Your task to perform on an android device: turn off data saver in the chrome app Image 0: 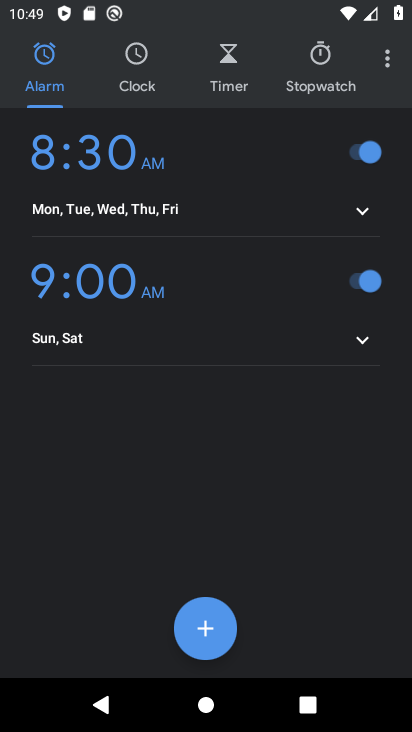
Step 0: press home button
Your task to perform on an android device: turn off data saver in the chrome app Image 1: 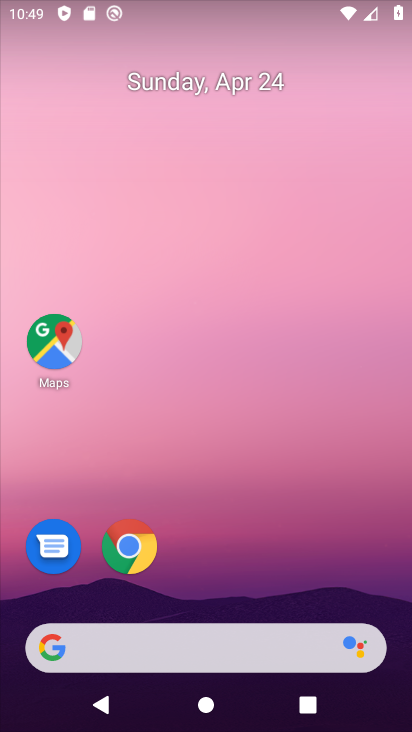
Step 1: click (116, 540)
Your task to perform on an android device: turn off data saver in the chrome app Image 2: 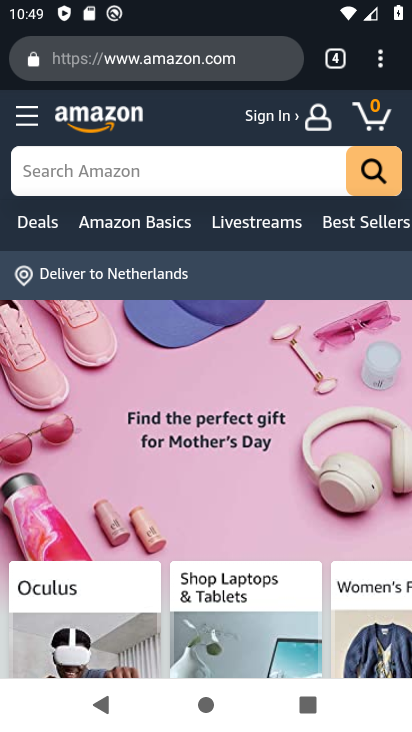
Step 2: click (384, 55)
Your task to perform on an android device: turn off data saver in the chrome app Image 3: 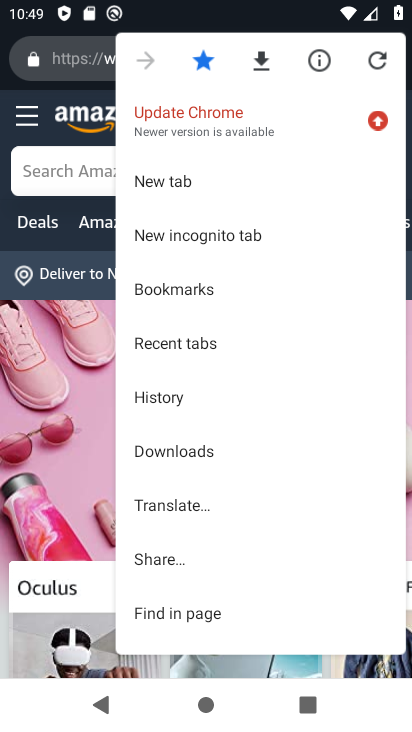
Step 3: drag from (308, 503) to (332, 120)
Your task to perform on an android device: turn off data saver in the chrome app Image 4: 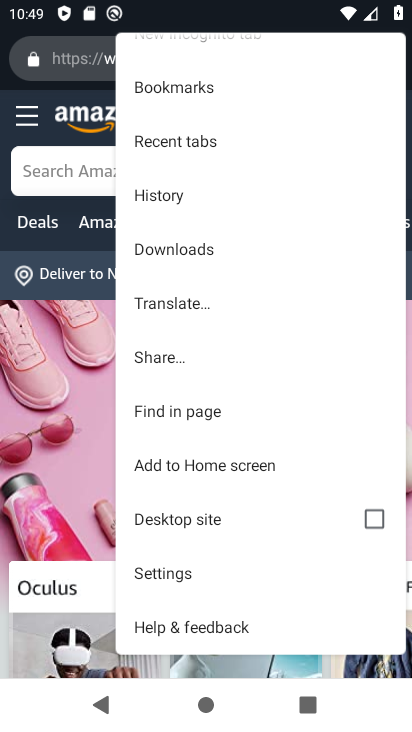
Step 4: click (174, 568)
Your task to perform on an android device: turn off data saver in the chrome app Image 5: 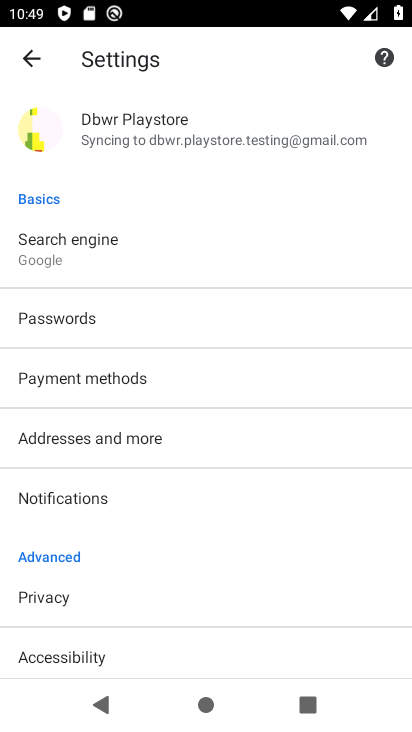
Step 5: drag from (208, 551) to (106, 1)
Your task to perform on an android device: turn off data saver in the chrome app Image 6: 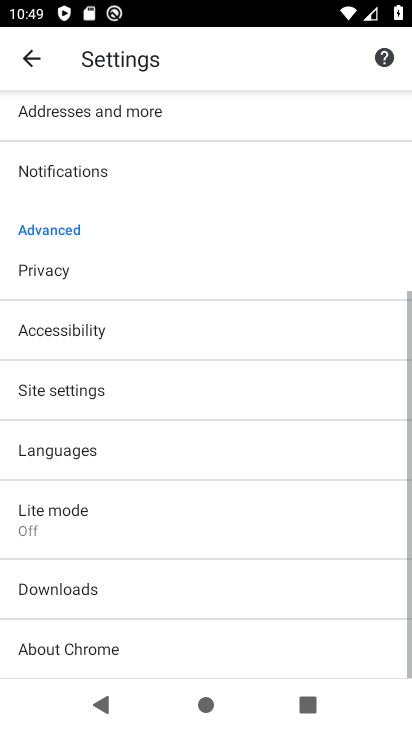
Step 6: drag from (258, 580) to (266, 164)
Your task to perform on an android device: turn off data saver in the chrome app Image 7: 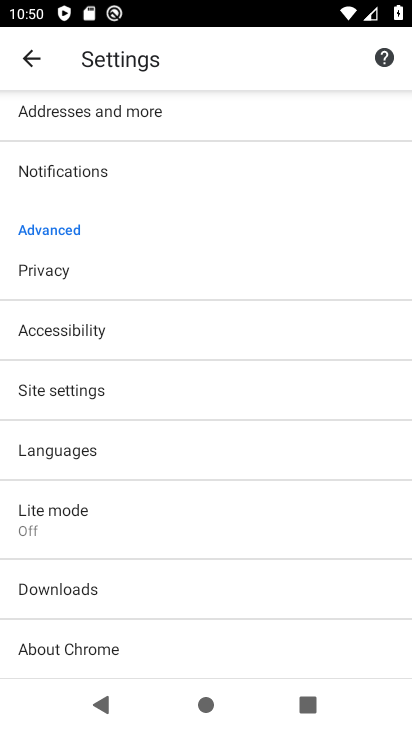
Step 7: drag from (259, 550) to (201, 102)
Your task to perform on an android device: turn off data saver in the chrome app Image 8: 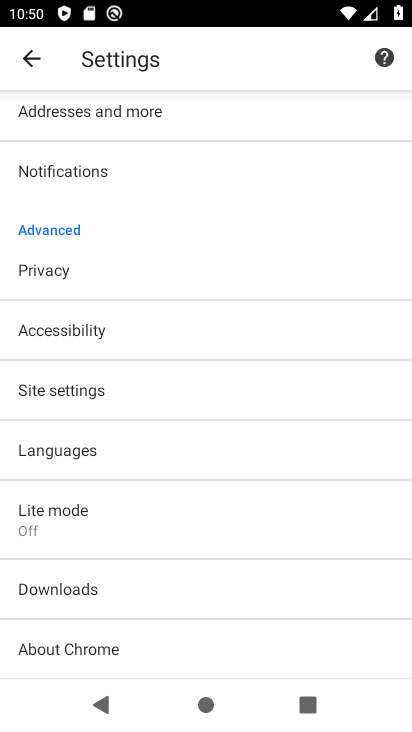
Step 8: click (186, 441)
Your task to perform on an android device: turn off data saver in the chrome app Image 9: 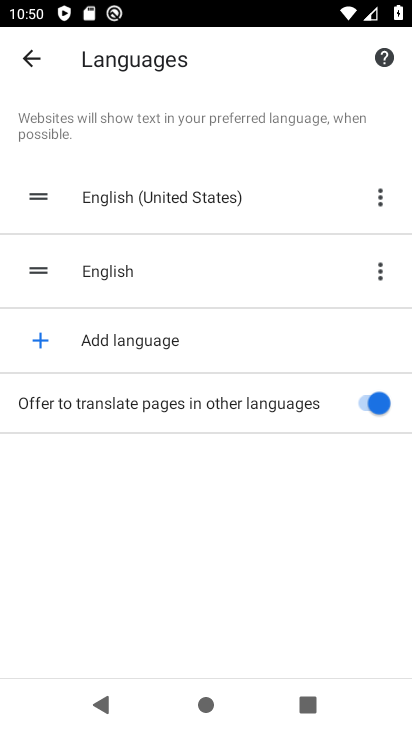
Step 9: click (376, 403)
Your task to perform on an android device: turn off data saver in the chrome app Image 10: 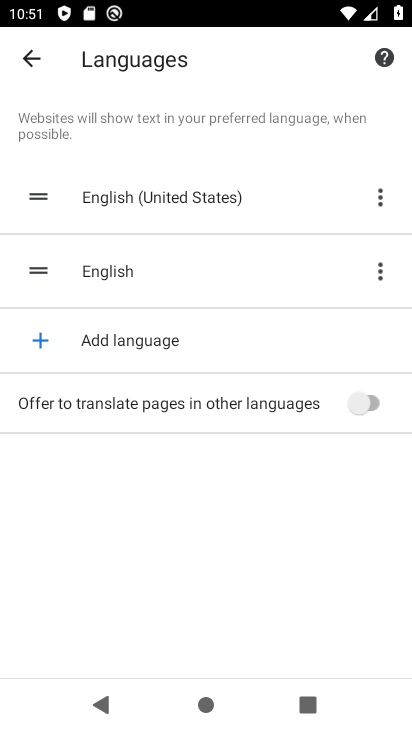
Step 10: task complete